Your task to perform on an android device: Go to Android settings Image 0: 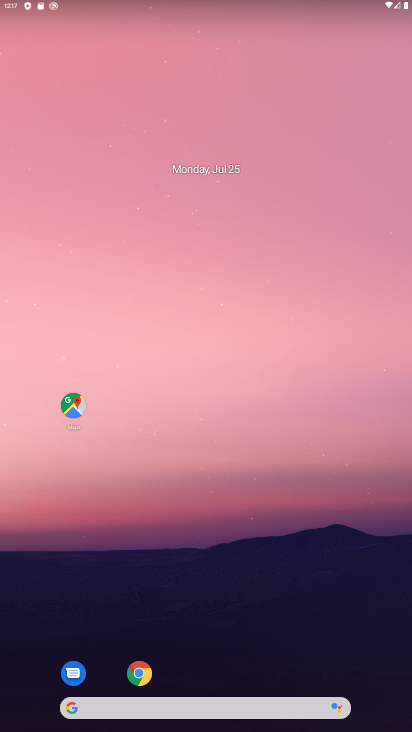
Step 0: drag from (175, 727) to (225, 193)
Your task to perform on an android device: Go to Android settings Image 1: 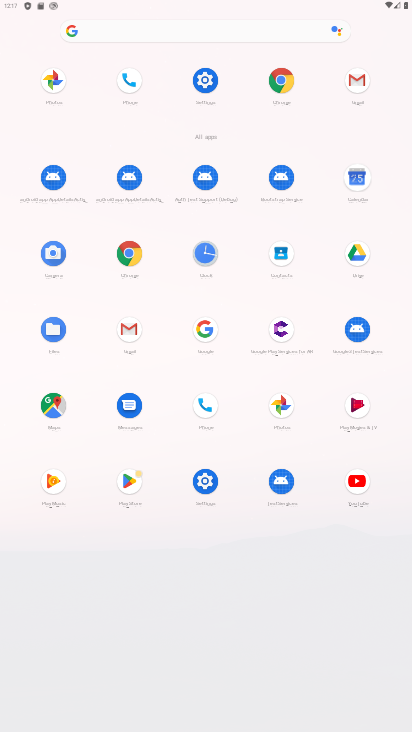
Step 1: click (215, 67)
Your task to perform on an android device: Go to Android settings Image 2: 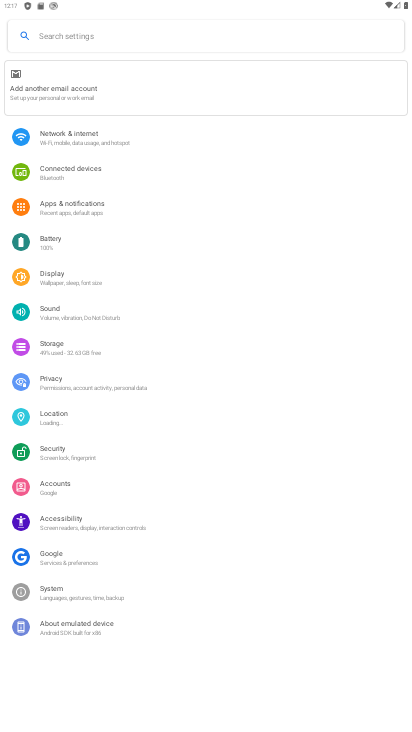
Step 2: click (90, 628)
Your task to perform on an android device: Go to Android settings Image 3: 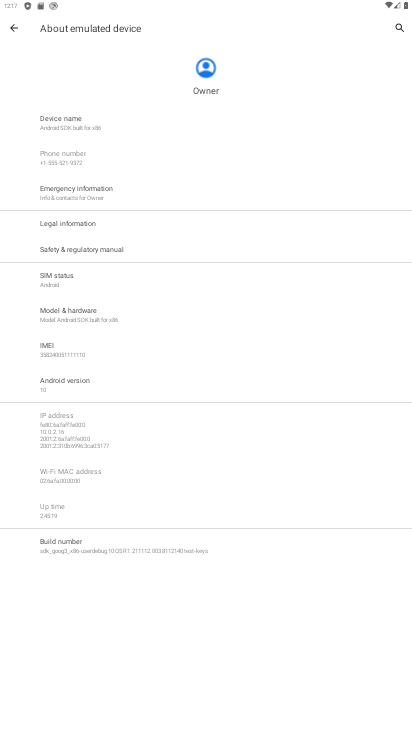
Step 3: task complete